Your task to perform on an android device: turn on translation in the chrome app Image 0: 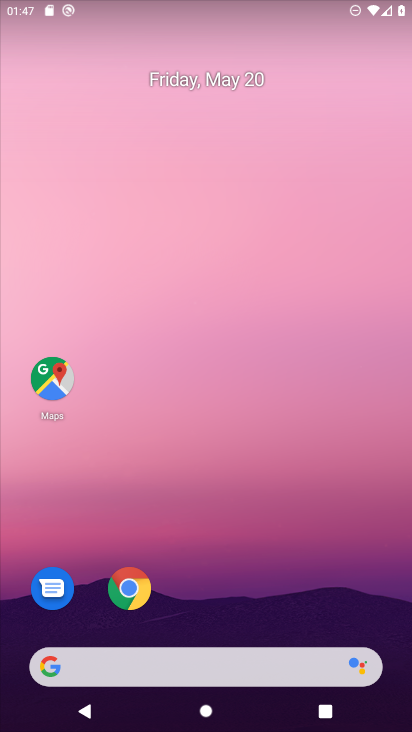
Step 0: click (128, 589)
Your task to perform on an android device: turn on translation in the chrome app Image 1: 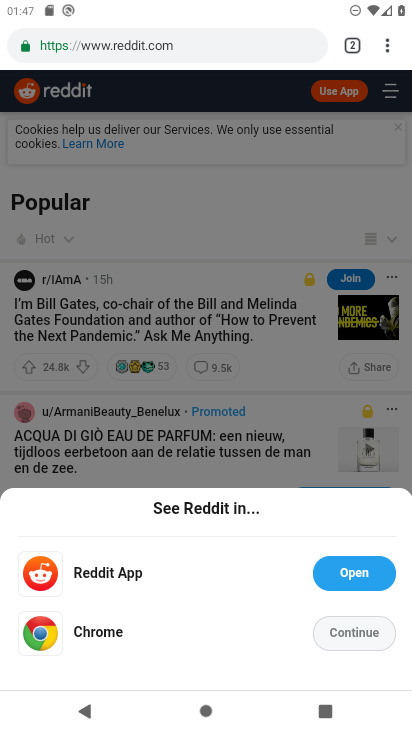
Step 1: click (383, 46)
Your task to perform on an android device: turn on translation in the chrome app Image 2: 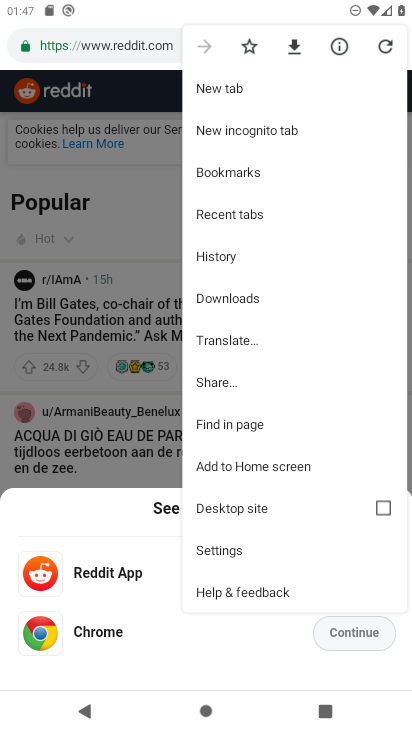
Step 2: click (213, 546)
Your task to perform on an android device: turn on translation in the chrome app Image 3: 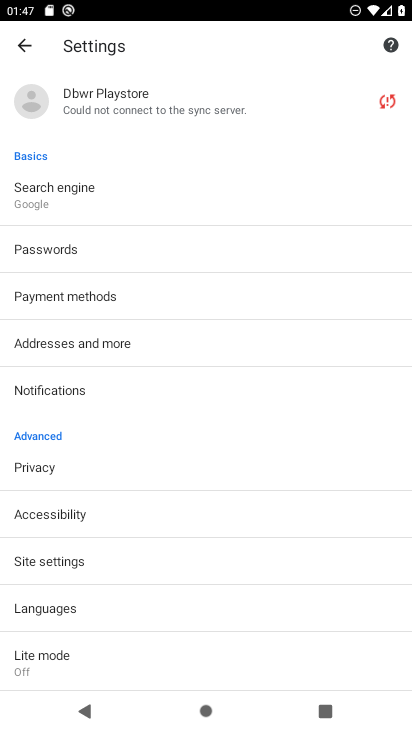
Step 3: click (43, 604)
Your task to perform on an android device: turn on translation in the chrome app Image 4: 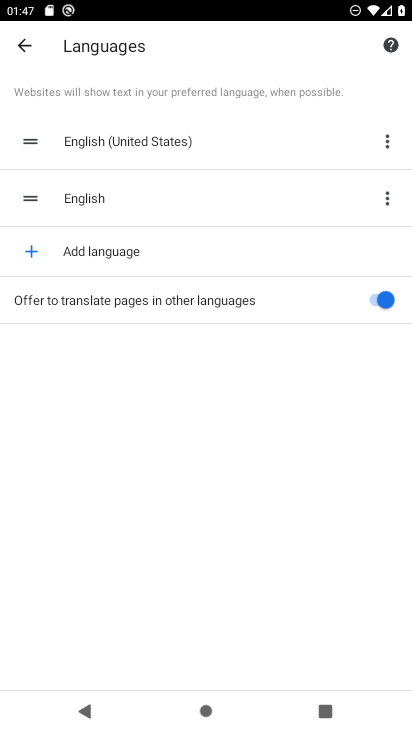
Step 4: task complete